Your task to perform on an android device: What's on my calendar today? Image 0: 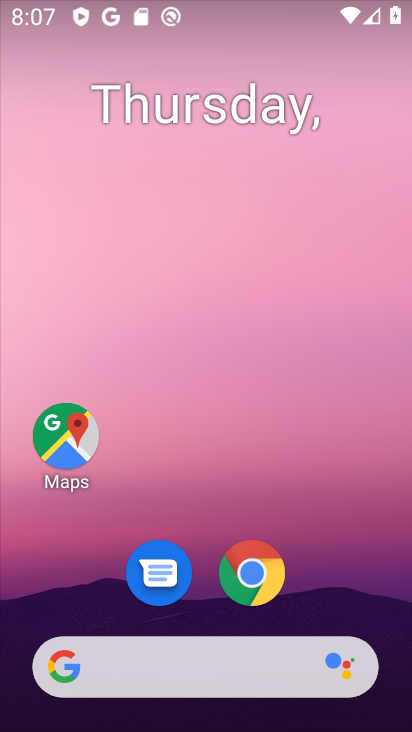
Step 0: drag from (374, 562) to (372, 178)
Your task to perform on an android device: What's on my calendar today? Image 1: 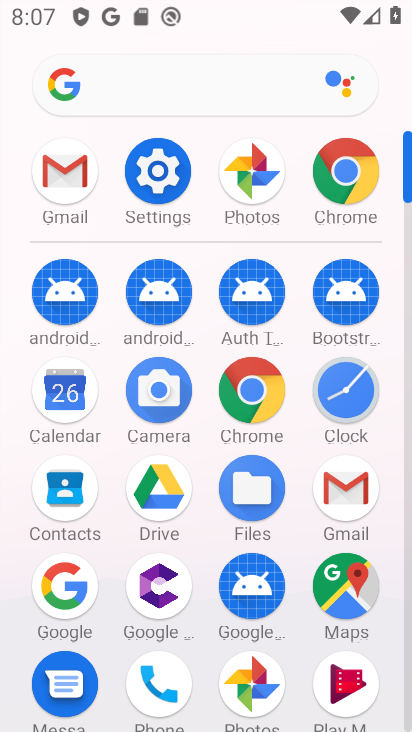
Step 1: click (54, 412)
Your task to perform on an android device: What's on my calendar today? Image 2: 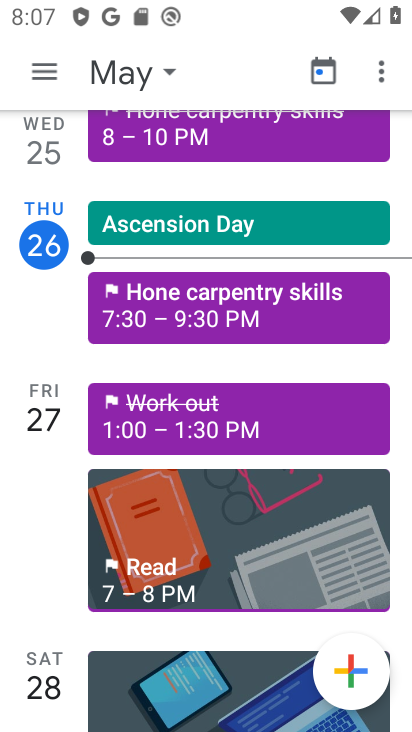
Step 2: click (129, 69)
Your task to perform on an android device: What's on my calendar today? Image 3: 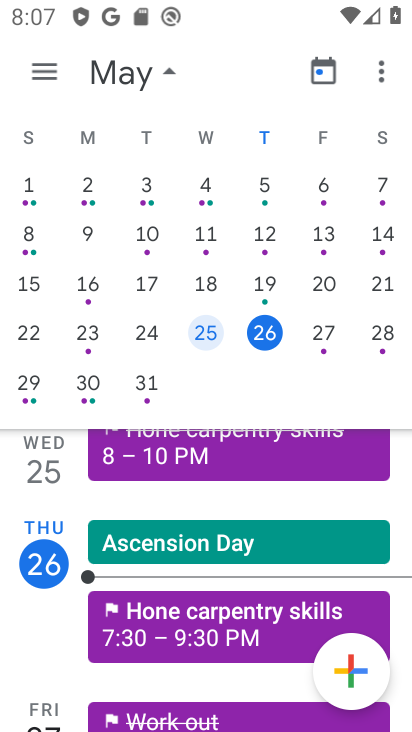
Step 3: task complete